Your task to perform on an android device: change the clock display to analog Image 0: 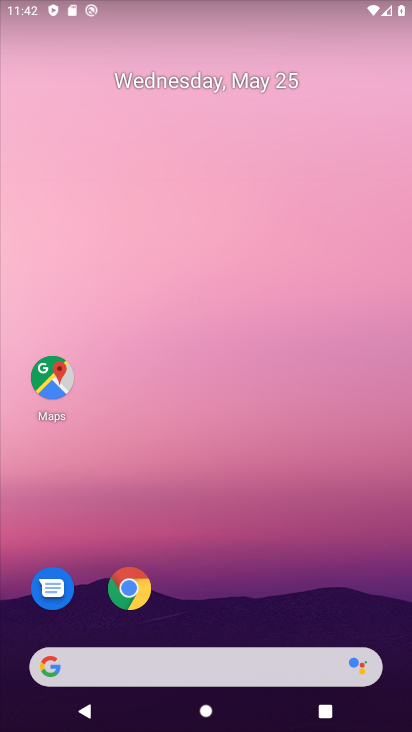
Step 0: drag from (202, 418) to (248, 237)
Your task to perform on an android device: change the clock display to analog Image 1: 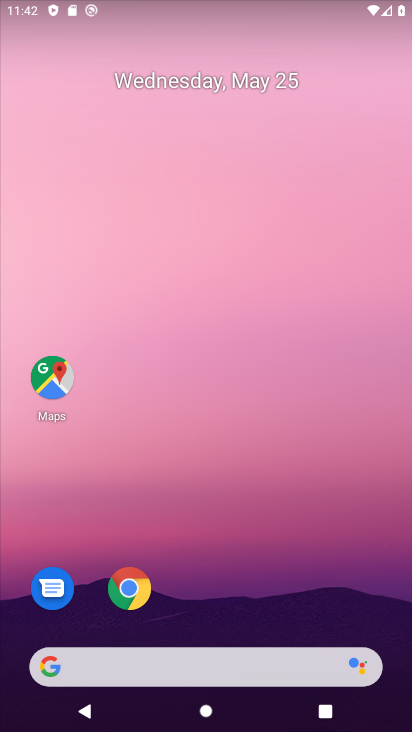
Step 1: drag from (195, 646) to (267, 254)
Your task to perform on an android device: change the clock display to analog Image 2: 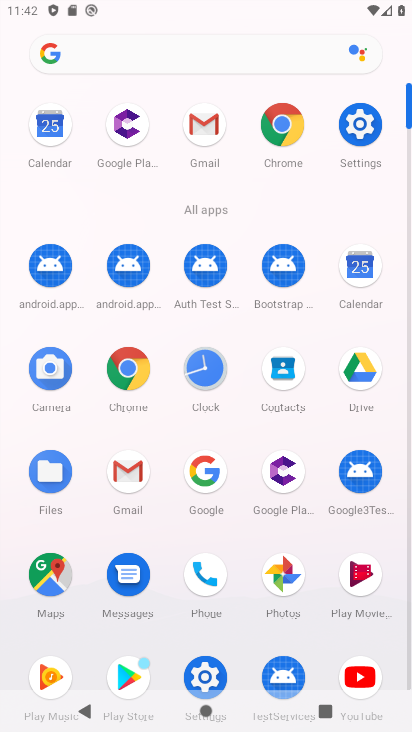
Step 2: click (203, 370)
Your task to perform on an android device: change the clock display to analog Image 3: 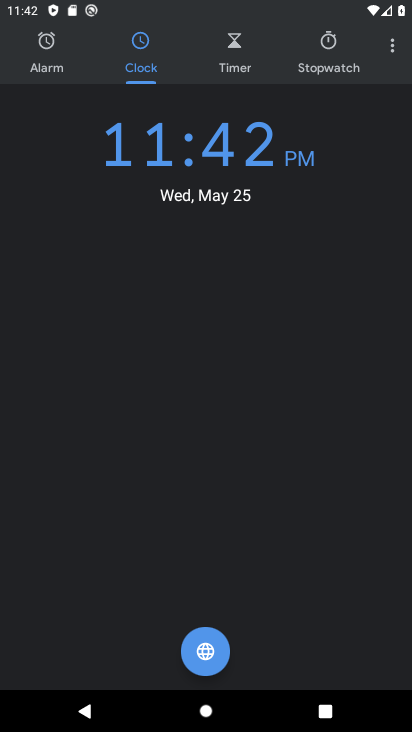
Step 3: click (392, 50)
Your task to perform on an android device: change the clock display to analog Image 4: 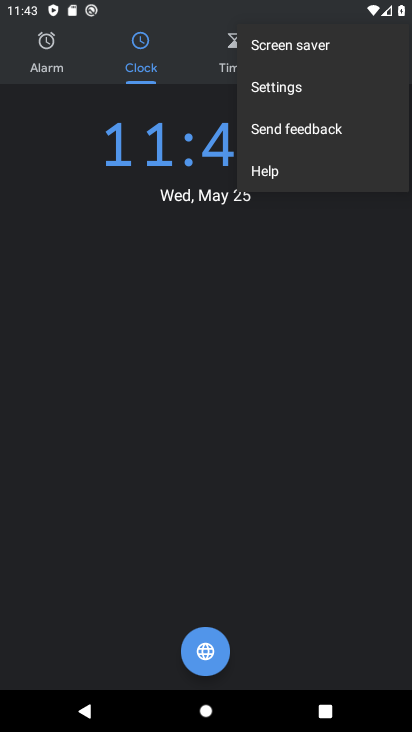
Step 4: click (281, 87)
Your task to perform on an android device: change the clock display to analog Image 5: 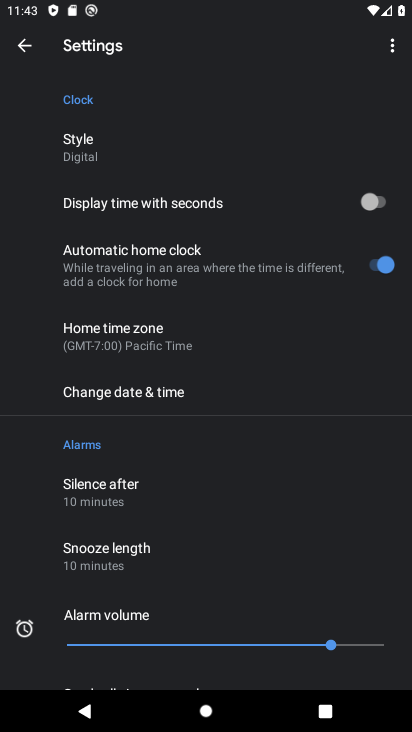
Step 5: click (115, 150)
Your task to perform on an android device: change the clock display to analog Image 6: 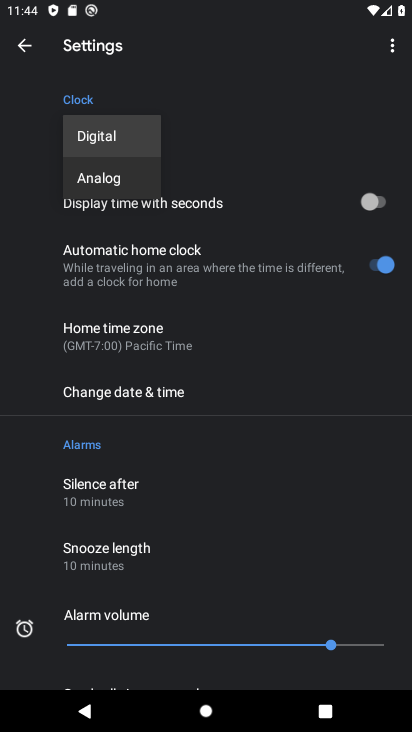
Step 6: click (133, 182)
Your task to perform on an android device: change the clock display to analog Image 7: 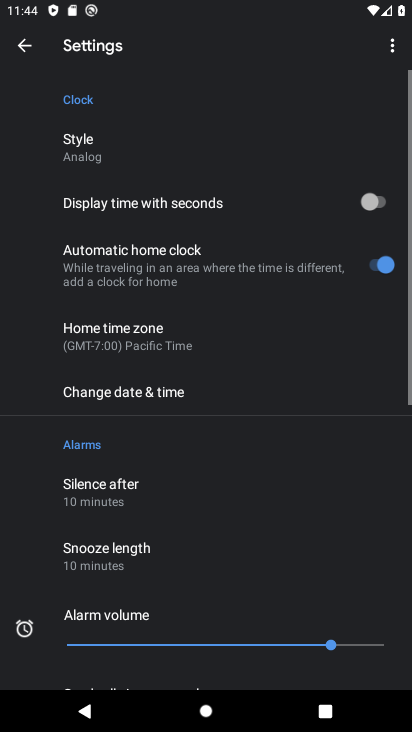
Step 7: task complete